Your task to perform on an android device: read, delete, or share a saved page in the chrome app Image 0: 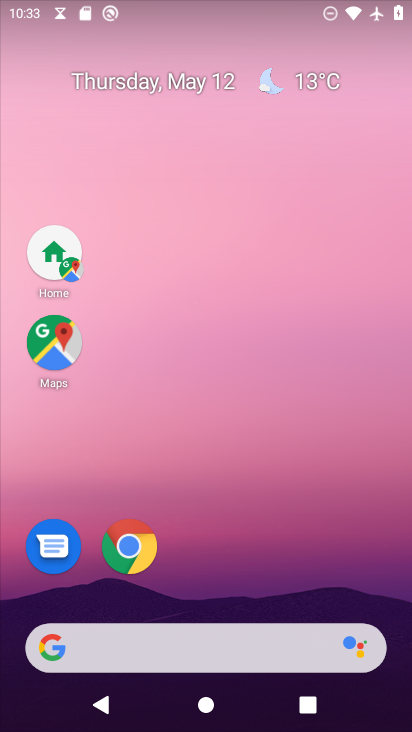
Step 0: press home button
Your task to perform on an android device: read, delete, or share a saved page in the chrome app Image 1: 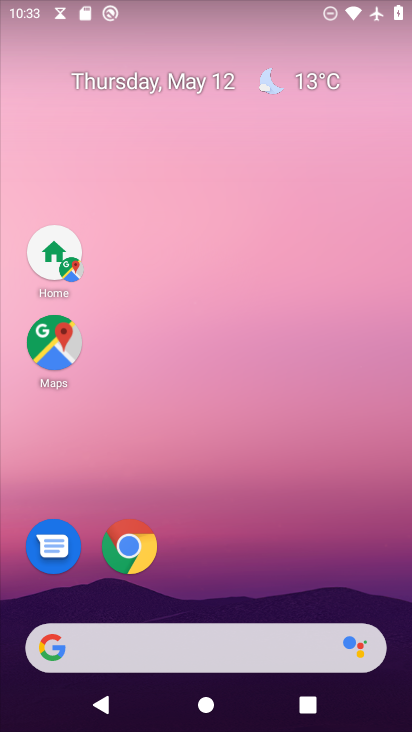
Step 1: drag from (133, 631) to (267, 167)
Your task to perform on an android device: read, delete, or share a saved page in the chrome app Image 2: 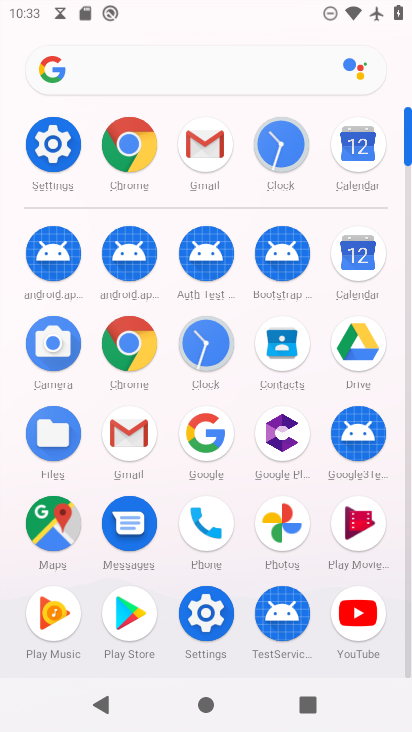
Step 2: click (133, 156)
Your task to perform on an android device: read, delete, or share a saved page in the chrome app Image 3: 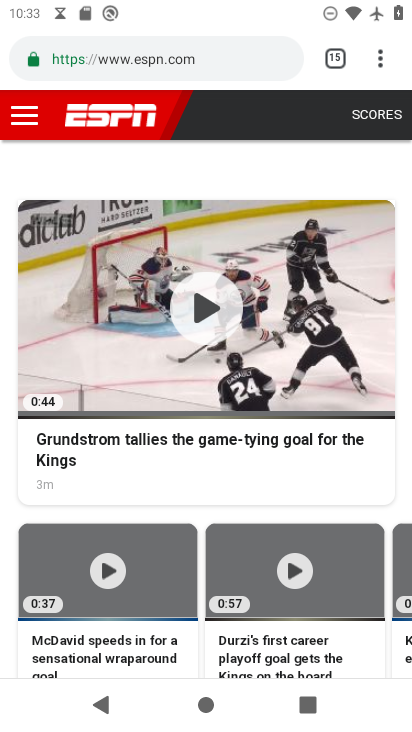
Step 3: drag from (381, 62) to (190, 383)
Your task to perform on an android device: read, delete, or share a saved page in the chrome app Image 4: 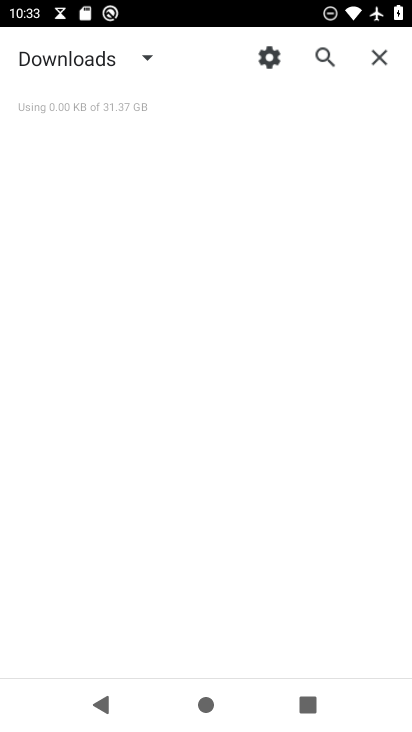
Step 4: click (114, 58)
Your task to perform on an android device: read, delete, or share a saved page in the chrome app Image 5: 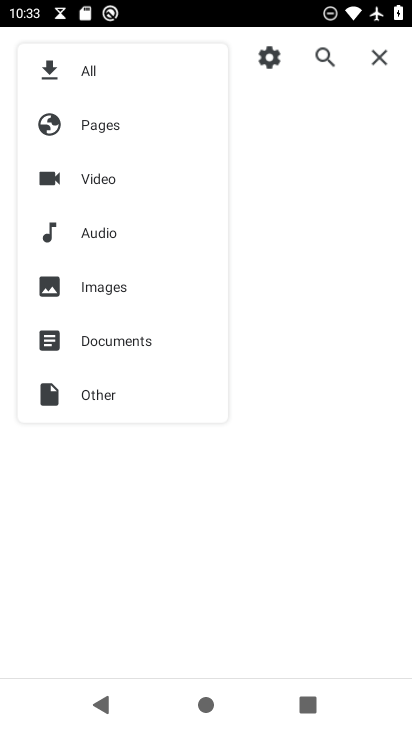
Step 5: click (112, 123)
Your task to perform on an android device: read, delete, or share a saved page in the chrome app Image 6: 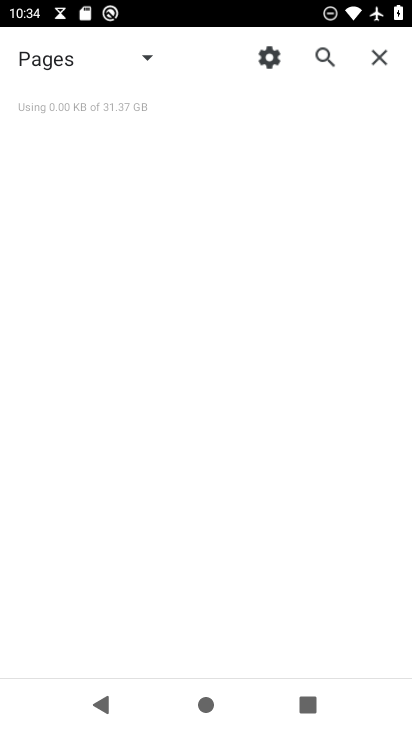
Step 6: task complete